Your task to perform on an android device: check data usage Image 0: 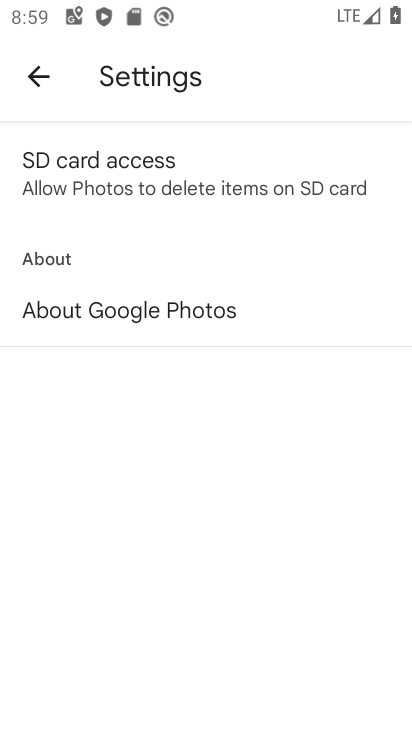
Step 0: press home button
Your task to perform on an android device: check data usage Image 1: 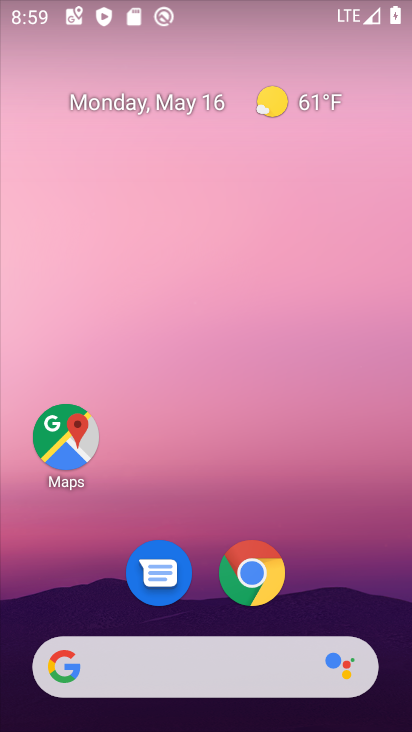
Step 1: drag from (206, 727) to (205, 247)
Your task to perform on an android device: check data usage Image 2: 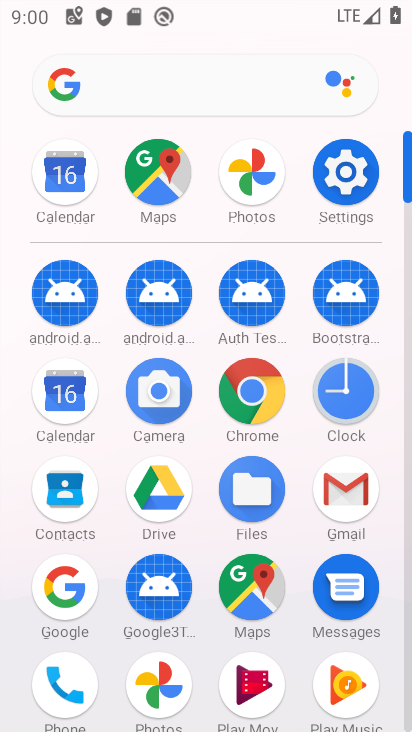
Step 2: click (355, 173)
Your task to perform on an android device: check data usage Image 3: 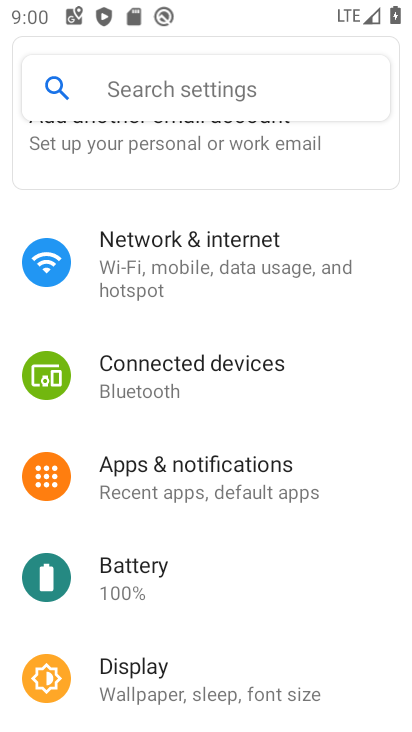
Step 3: click (153, 253)
Your task to perform on an android device: check data usage Image 4: 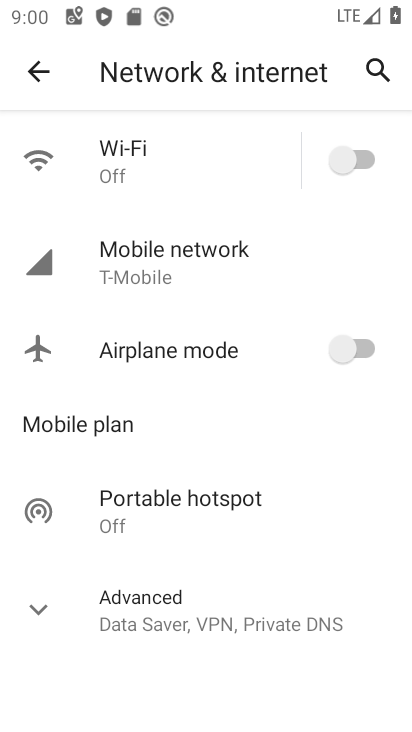
Step 4: click (129, 258)
Your task to perform on an android device: check data usage Image 5: 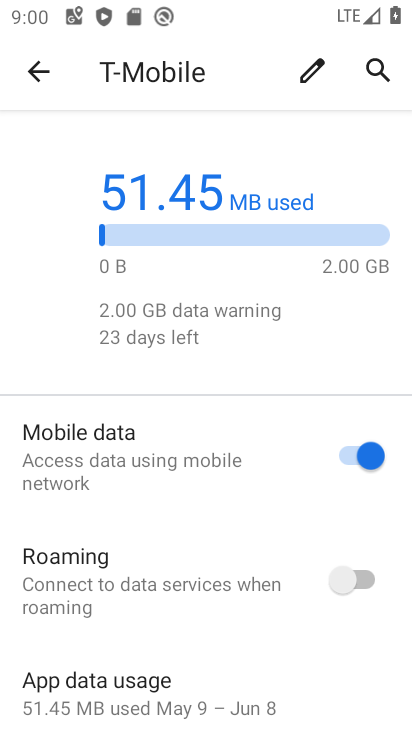
Step 5: click (102, 699)
Your task to perform on an android device: check data usage Image 6: 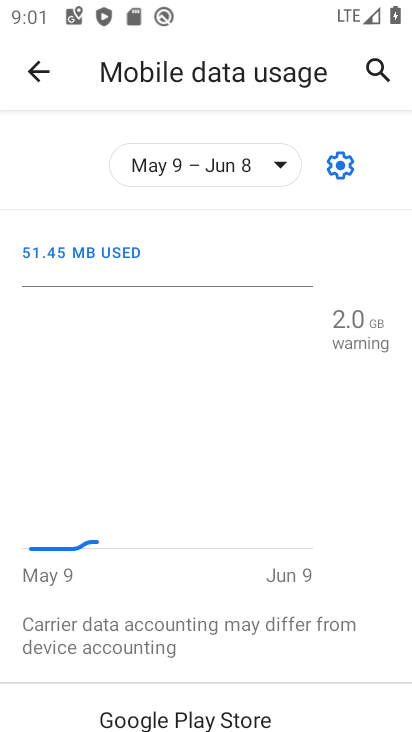
Step 6: task complete